Your task to perform on an android device: Open wifi settings Image 0: 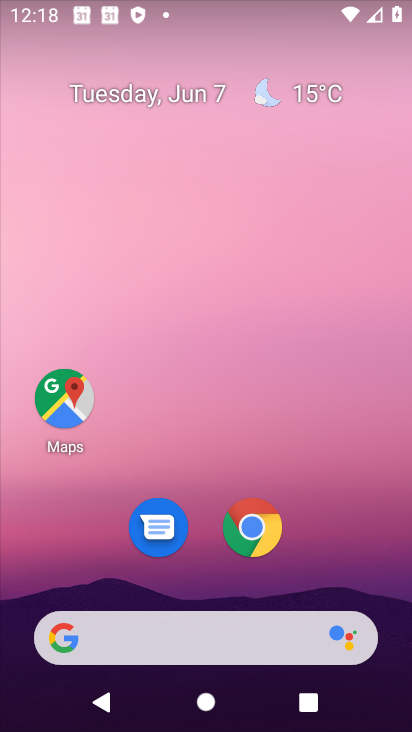
Step 0: press back button
Your task to perform on an android device: Open wifi settings Image 1: 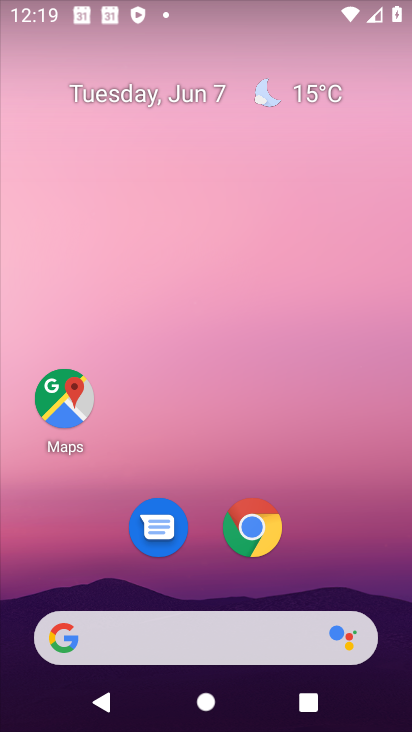
Step 1: drag from (277, 698) to (103, 173)
Your task to perform on an android device: Open wifi settings Image 2: 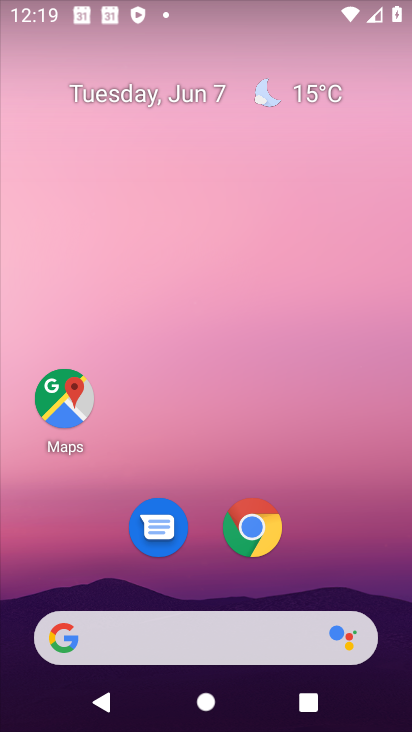
Step 2: drag from (261, 688) to (204, 48)
Your task to perform on an android device: Open wifi settings Image 3: 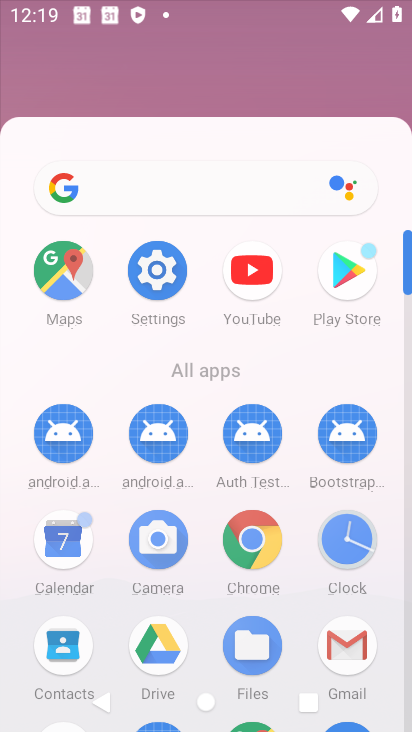
Step 3: drag from (258, 246) to (222, 70)
Your task to perform on an android device: Open wifi settings Image 4: 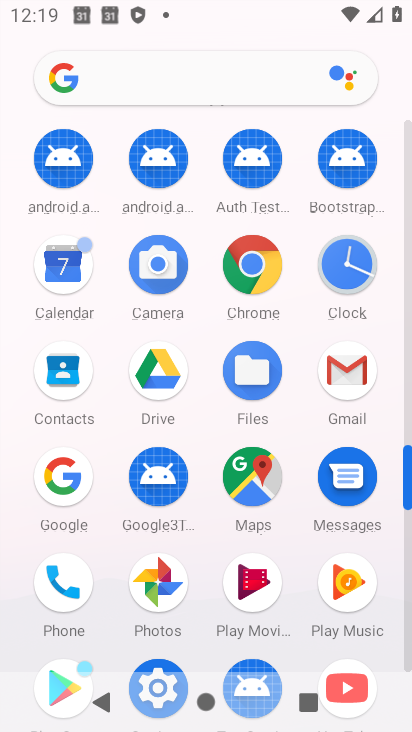
Step 4: drag from (184, 511) to (166, 221)
Your task to perform on an android device: Open wifi settings Image 5: 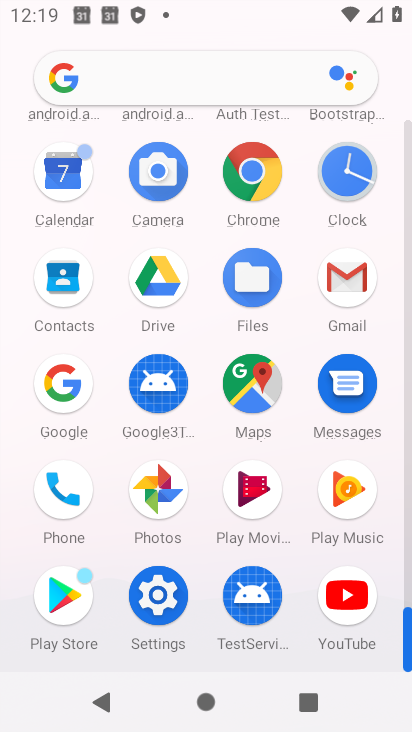
Step 5: drag from (230, 498) to (184, 163)
Your task to perform on an android device: Open wifi settings Image 6: 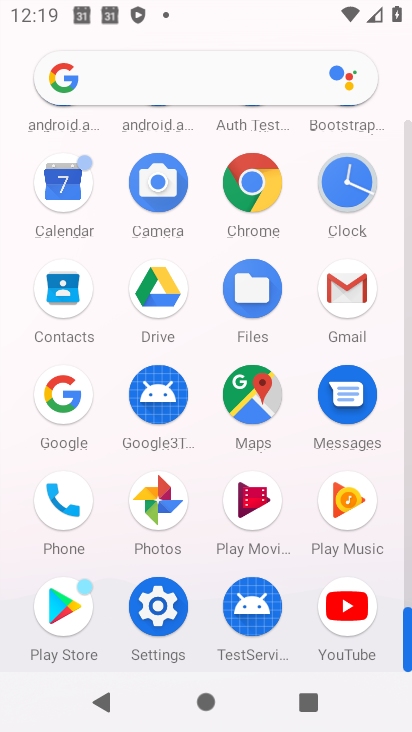
Step 6: click (162, 598)
Your task to perform on an android device: Open wifi settings Image 7: 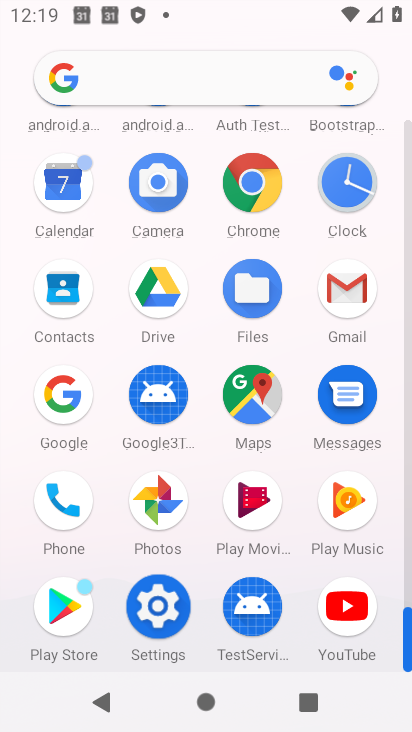
Step 7: click (162, 598)
Your task to perform on an android device: Open wifi settings Image 8: 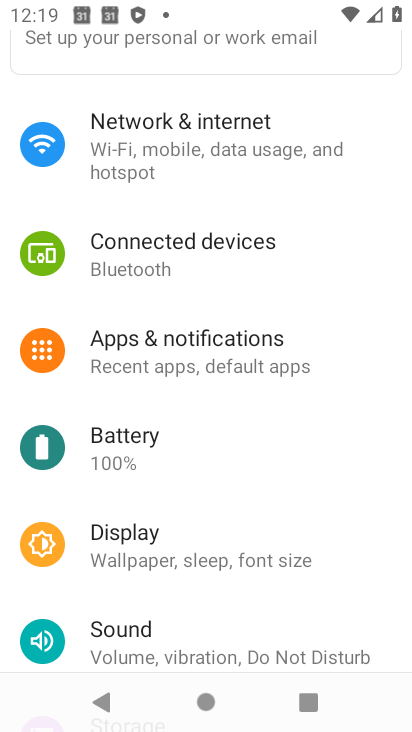
Step 8: drag from (175, 474) to (169, 37)
Your task to perform on an android device: Open wifi settings Image 9: 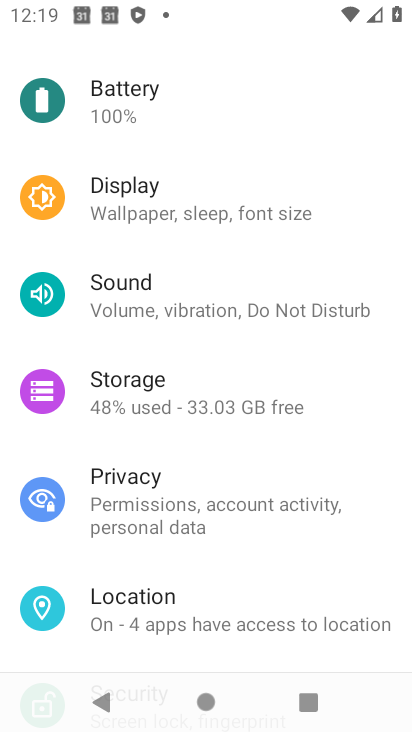
Step 9: drag from (232, 325) to (208, 58)
Your task to perform on an android device: Open wifi settings Image 10: 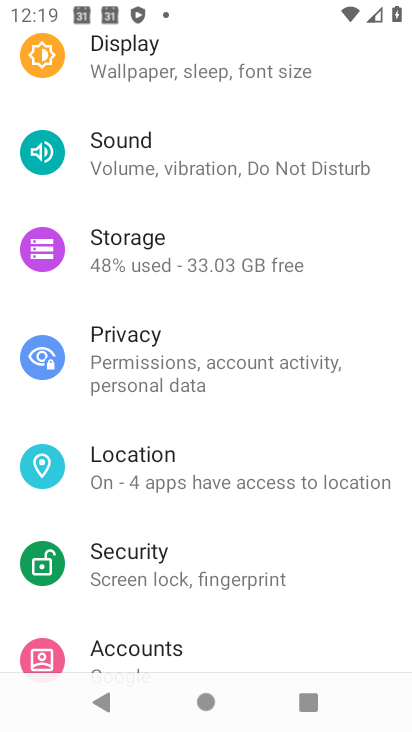
Step 10: click (200, 177)
Your task to perform on an android device: Open wifi settings Image 11: 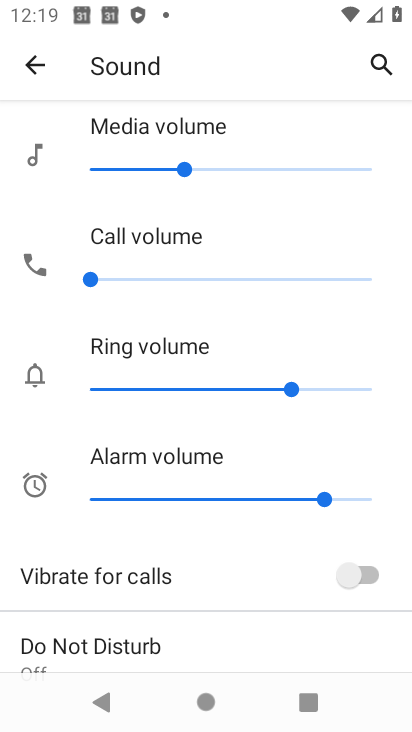
Step 11: click (39, 67)
Your task to perform on an android device: Open wifi settings Image 12: 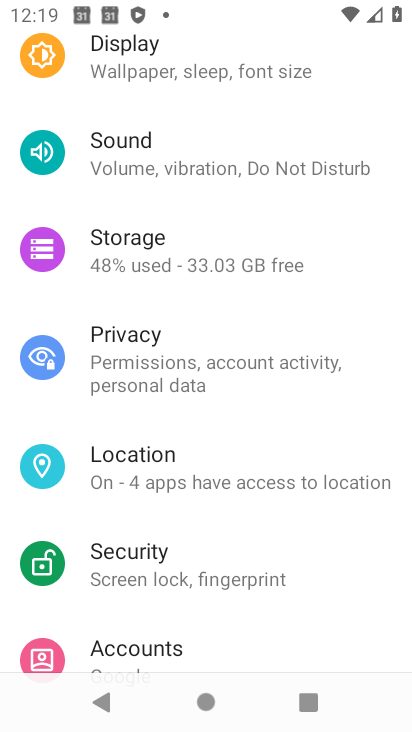
Step 12: drag from (133, 44) to (215, 530)
Your task to perform on an android device: Open wifi settings Image 13: 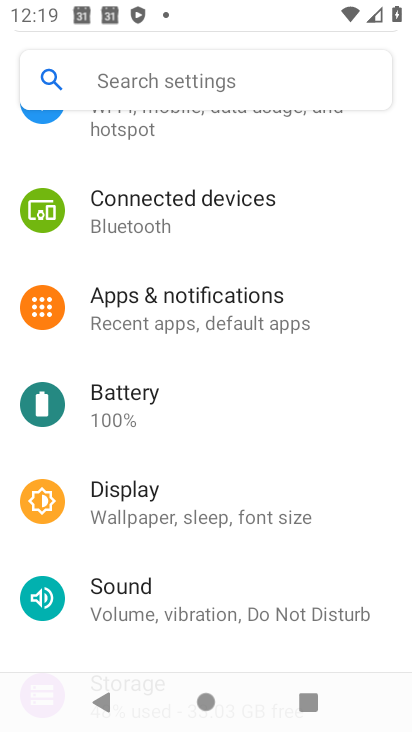
Step 13: drag from (157, 204) to (239, 607)
Your task to perform on an android device: Open wifi settings Image 14: 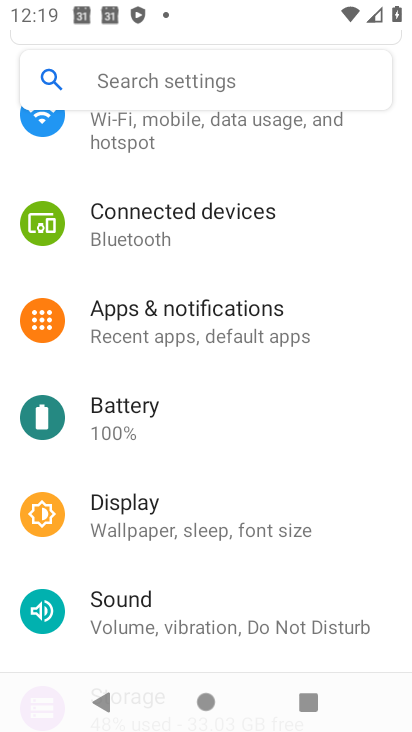
Step 14: drag from (192, 246) to (246, 562)
Your task to perform on an android device: Open wifi settings Image 15: 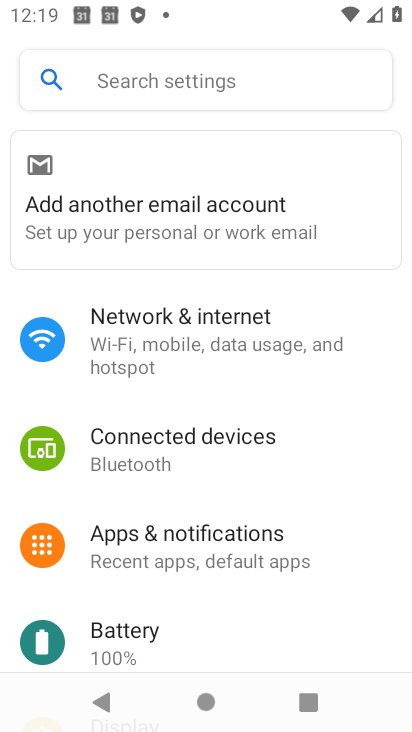
Step 15: drag from (198, 199) to (247, 576)
Your task to perform on an android device: Open wifi settings Image 16: 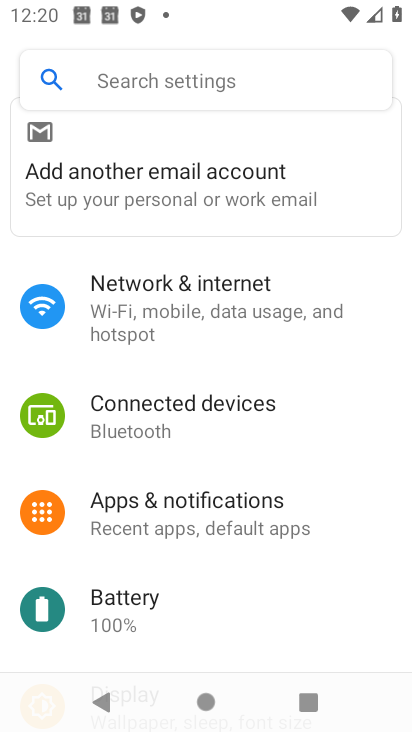
Step 16: click (196, 300)
Your task to perform on an android device: Open wifi settings Image 17: 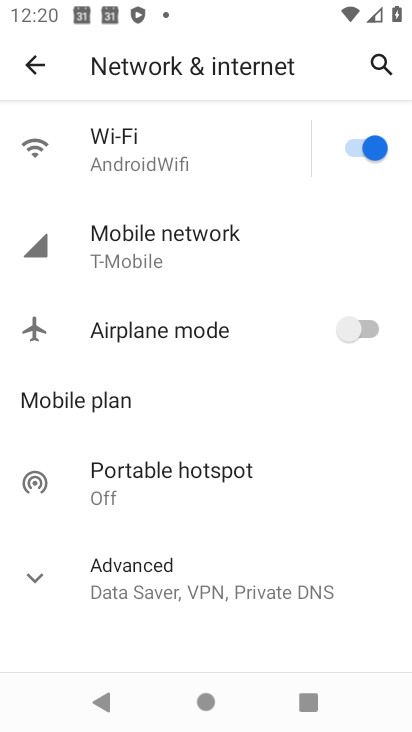
Step 17: task complete